Your task to perform on an android device: Open ESPN.com Image 0: 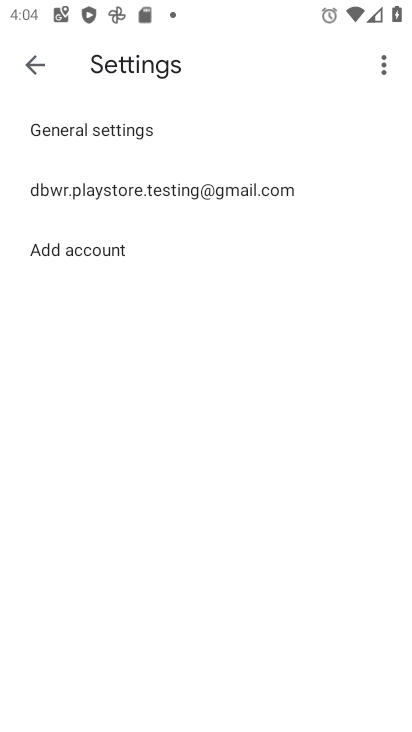
Step 0: press home button
Your task to perform on an android device: Open ESPN.com Image 1: 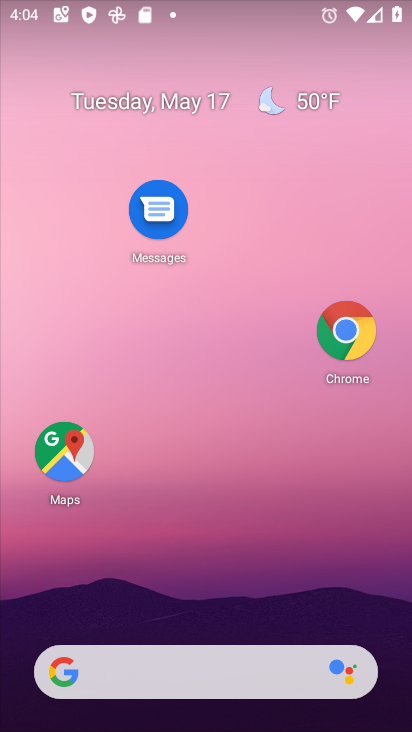
Step 1: click (344, 334)
Your task to perform on an android device: Open ESPN.com Image 2: 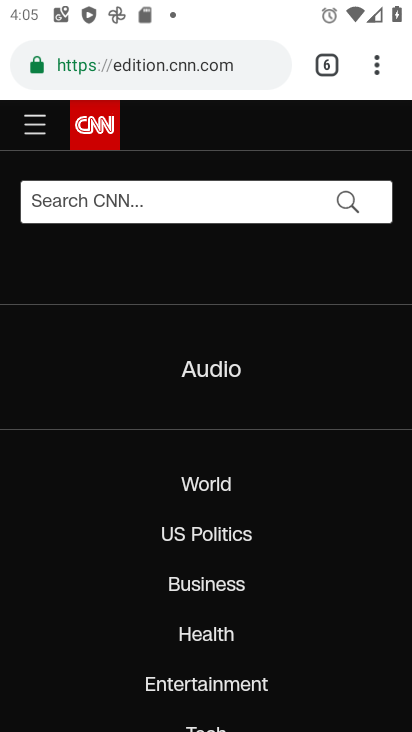
Step 2: click (148, 54)
Your task to perform on an android device: Open ESPN.com Image 3: 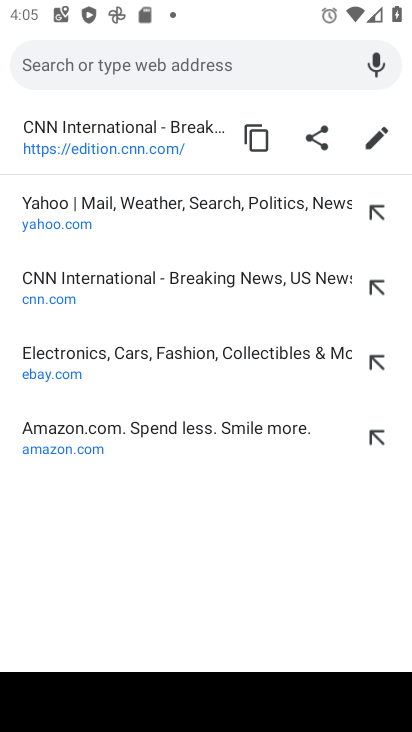
Step 3: type "espn.com"
Your task to perform on an android device: Open ESPN.com Image 4: 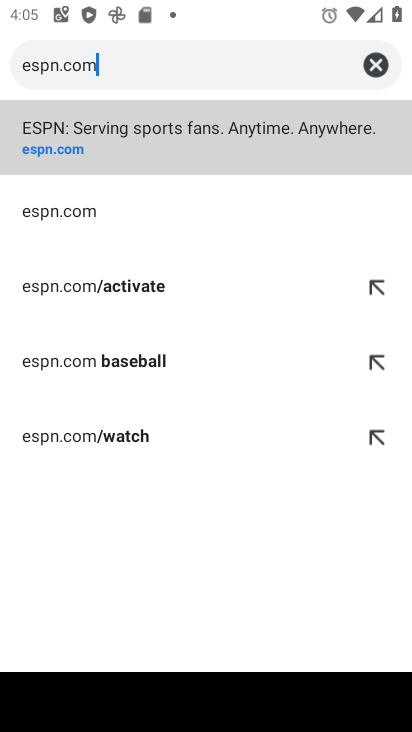
Step 4: click (125, 153)
Your task to perform on an android device: Open ESPN.com Image 5: 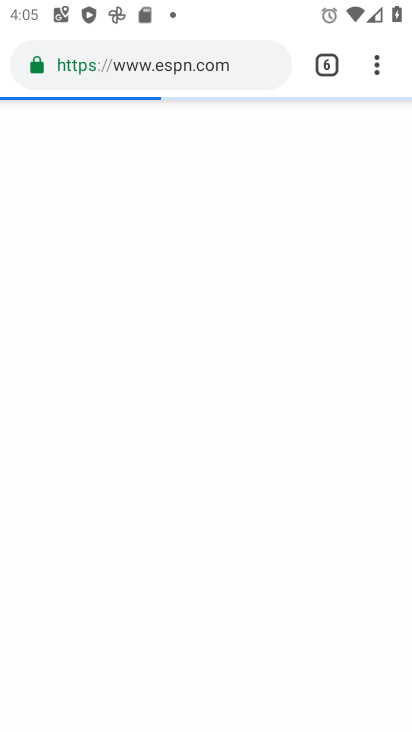
Step 5: task complete